Your task to perform on an android device: turn on improve location accuracy Image 0: 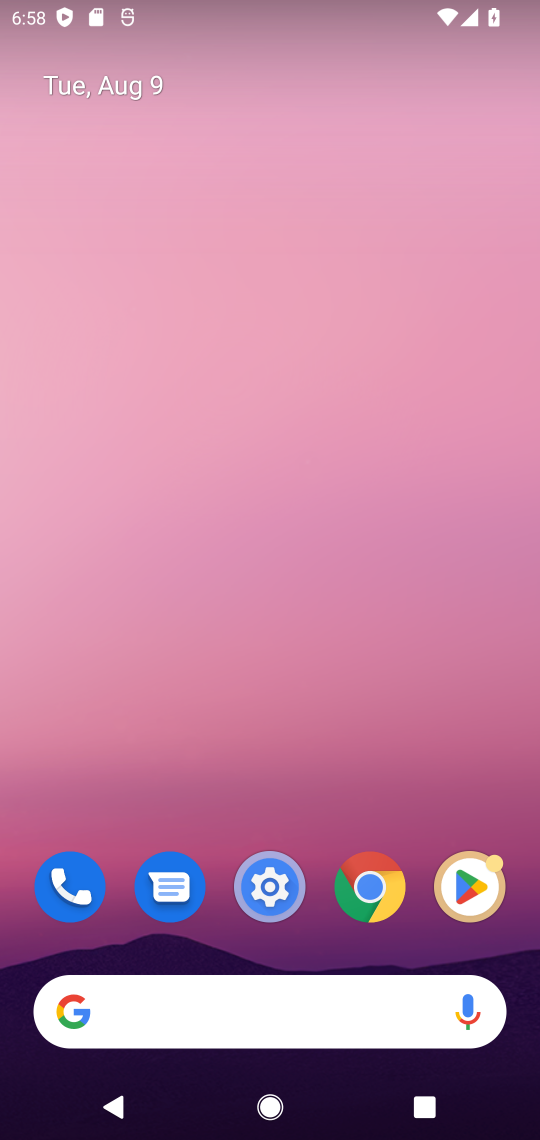
Step 0: drag from (183, 358) to (287, 376)
Your task to perform on an android device: turn on improve location accuracy Image 1: 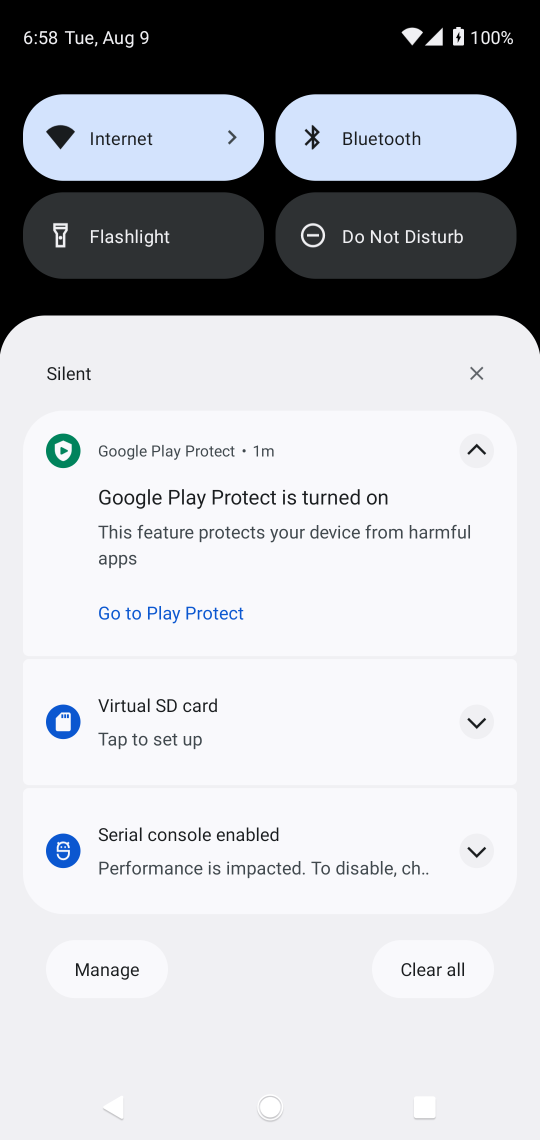
Step 1: drag from (203, 800) to (230, 387)
Your task to perform on an android device: turn on improve location accuracy Image 2: 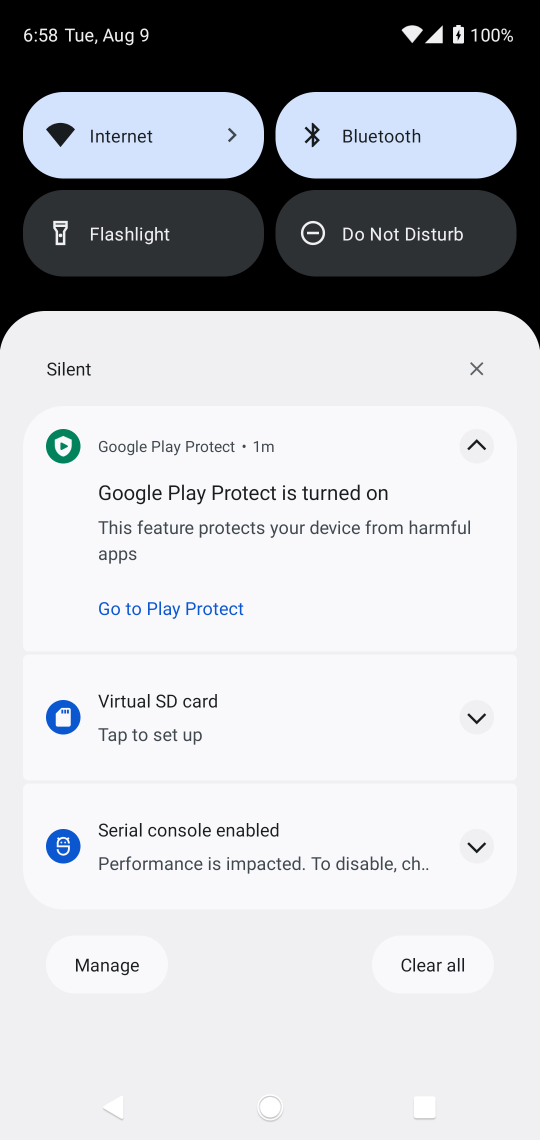
Step 2: press back button
Your task to perform on an android device: turn on improve location accuracy Image 3: 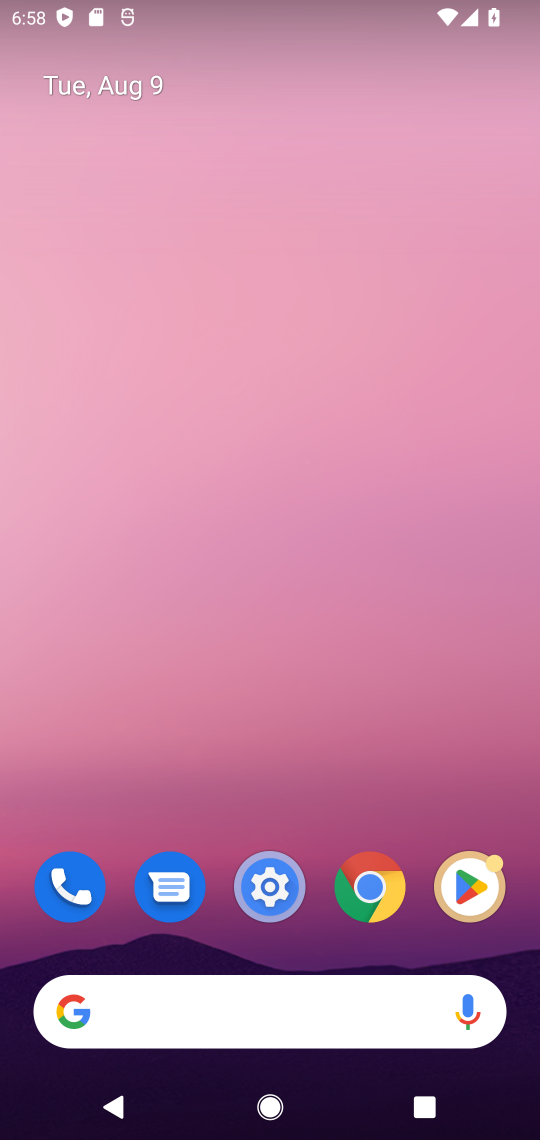
Step 3: drag from (184, 726) to (281, 518)
Your task to perform on an android device: turn on improve location accuracy Image 4: 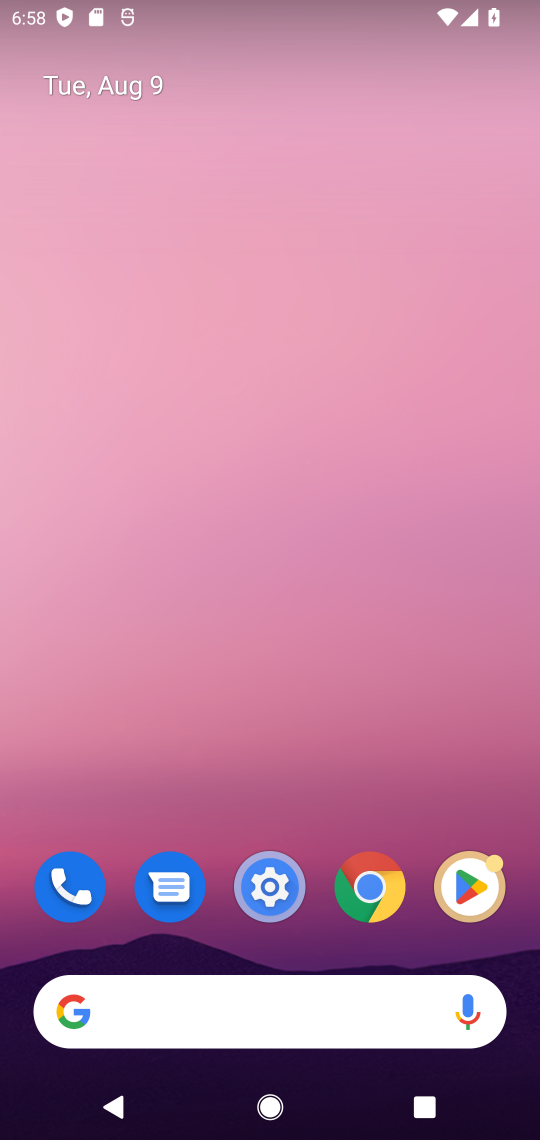
Step 4: drag from (300, 949) to (258, 189)
Your task to perform on an android device: turn on improve location accuracy Image 5: 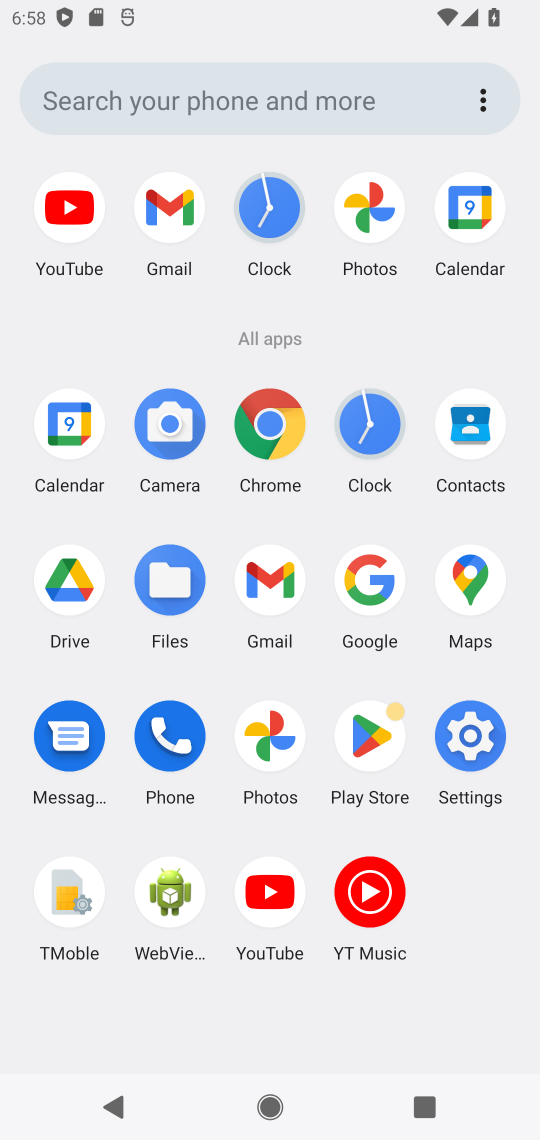
Step 5: click (471, 722)
Your task to perform on an android device: turn on improve location accuracy Image 6: 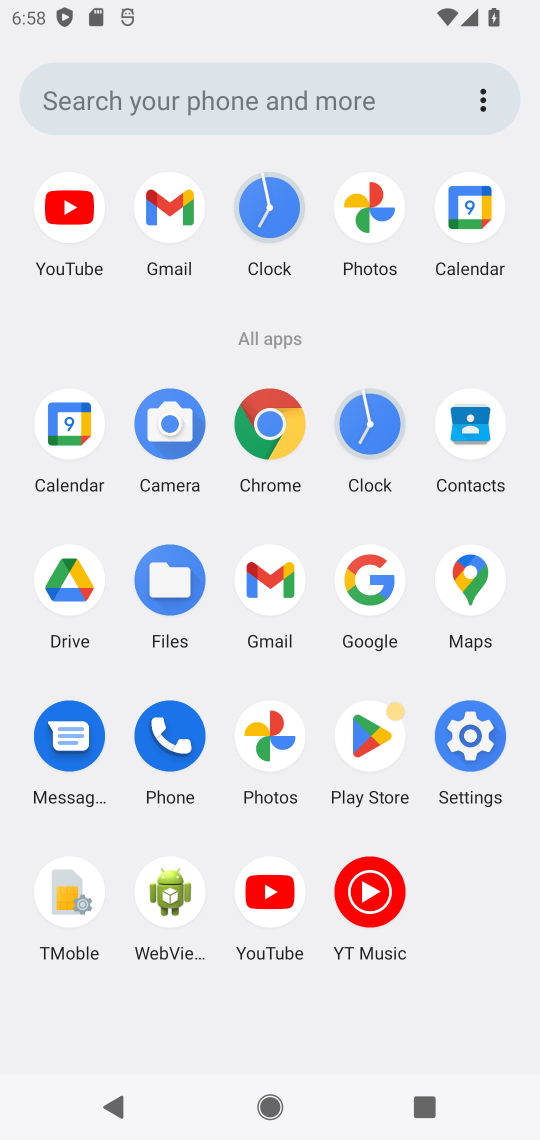
Step 6: click (468, 730)
Your task to perform on an android device: turn on improve location accuracy Image 7: 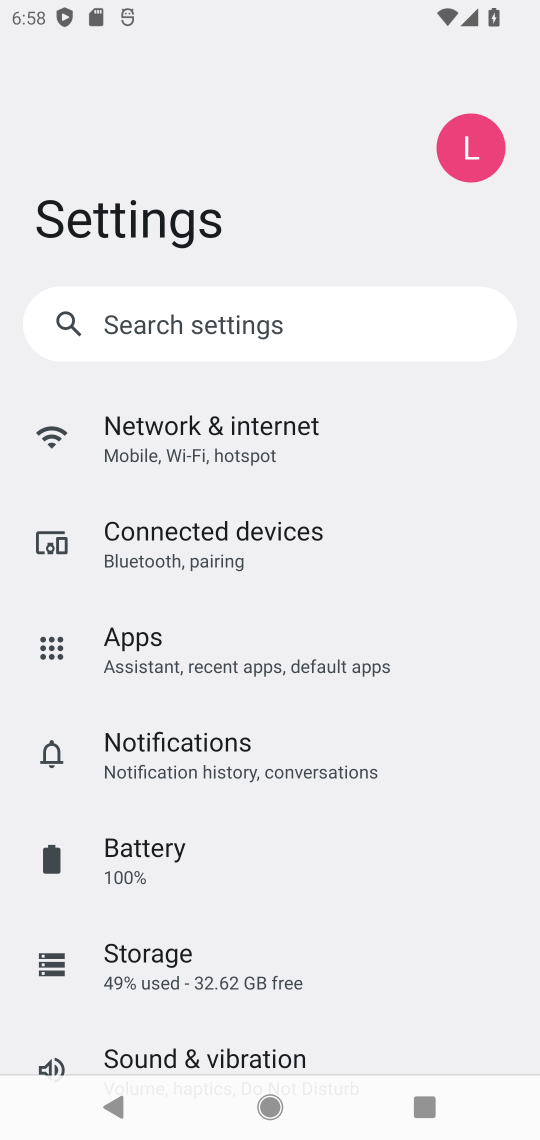
Step 7: drag from (157, 906) to (187, 426)
Your task to perform on an android device: turn on improve location accuracy Image 8: 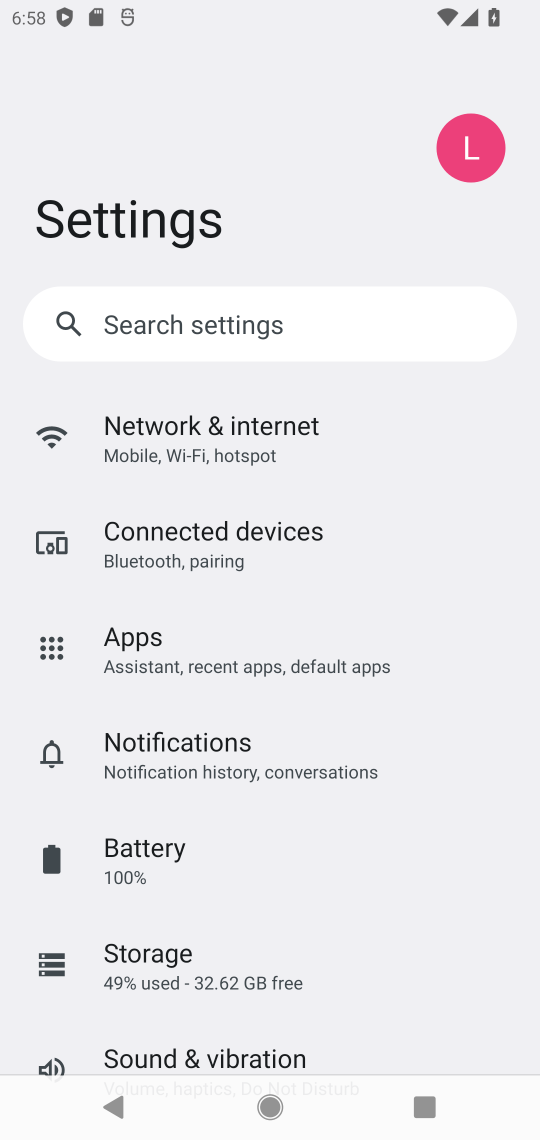
Step 8: drag from (203, 880) to (270, 256)
Your task to perform on an android device: turn on improve location accuracy Image 9: 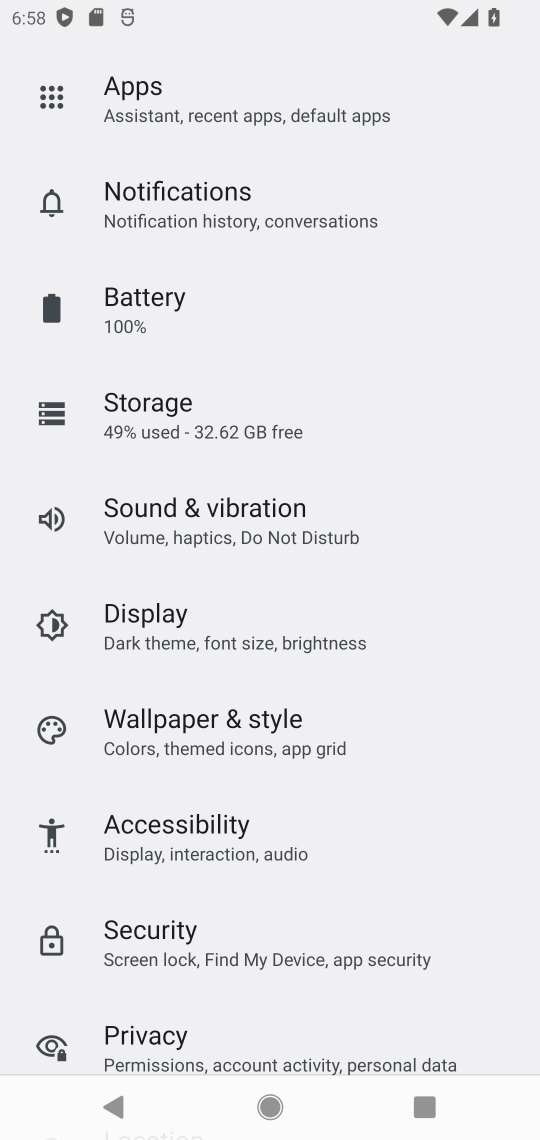
Step 9: drag from (204, 924) to (193, 502)
Your task to perform on an android device: turn on improve location accuracy Image 10: 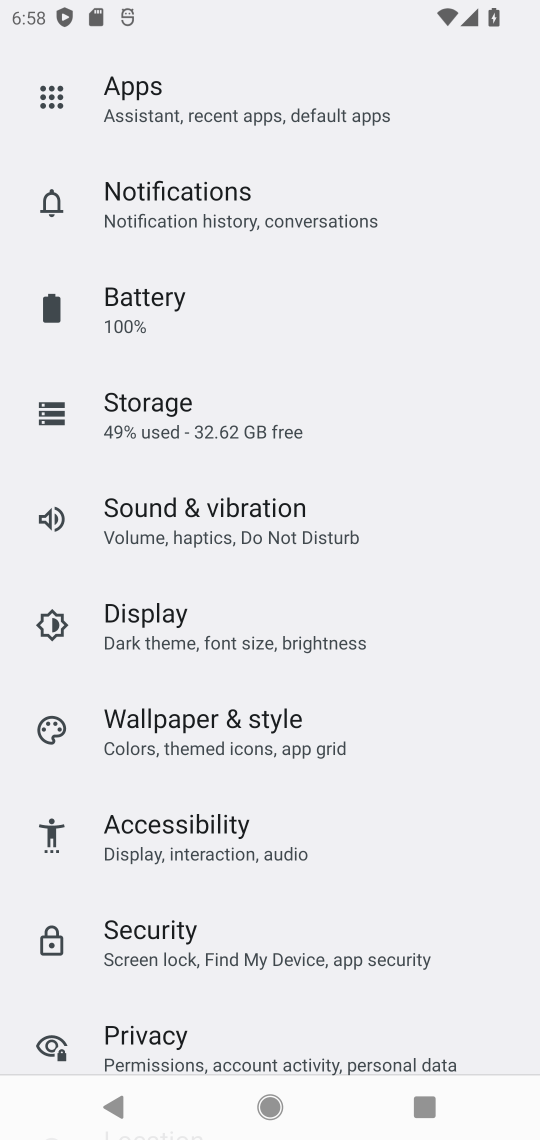
Step 10: drag from (163, 898) to (163, 459)
Your task to perform on an android device: turn on improve location accuracy Image 11: 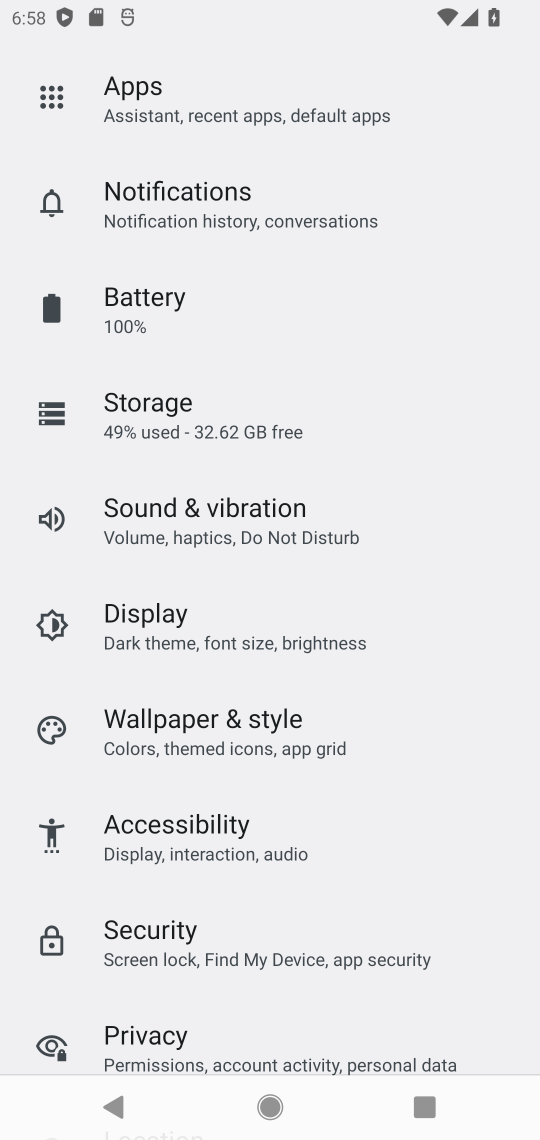
Step 11: drag from (176, 789) to (186, 431)
Your task to perform on an android device: turn on improve location accuracy Image 12: 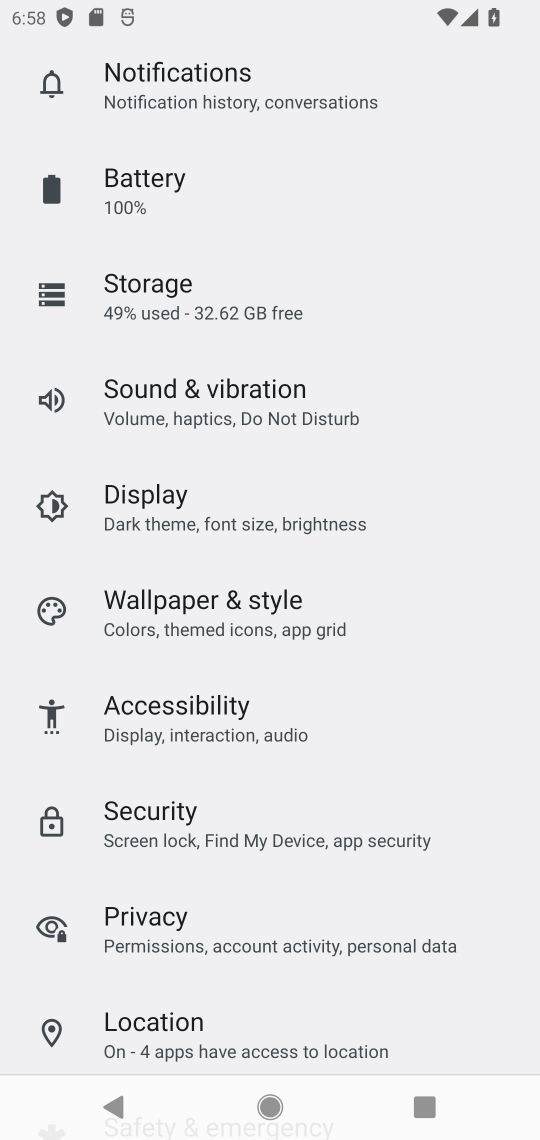
Step 12: drag from (185, 899) to (176, 297)
Your task to perform on an android device: turn on improve location accuracy Image 13: 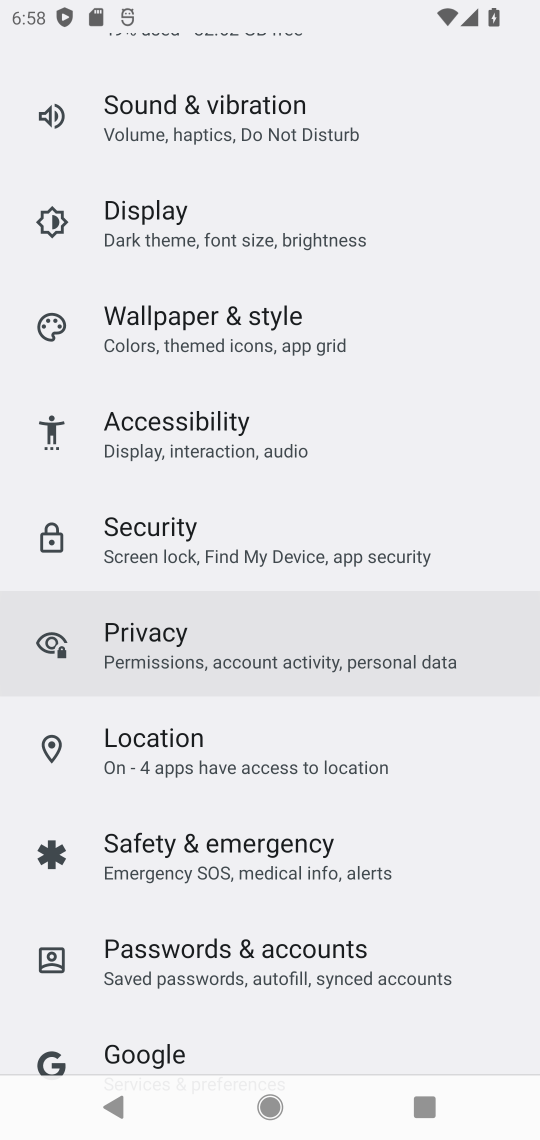
Step 13: click (152, 1024)
Your task to perform on an android device: turn on improve location accuracy Image 14: 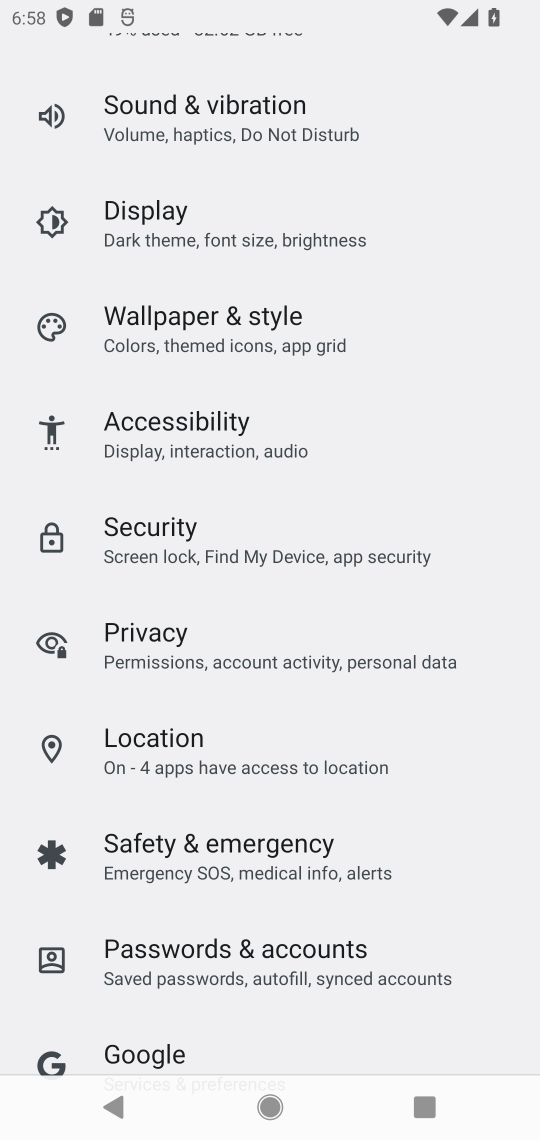
Step 14: click (125, 745)
Your task to perform on an android device: turn on improve location accuracy Image 15: 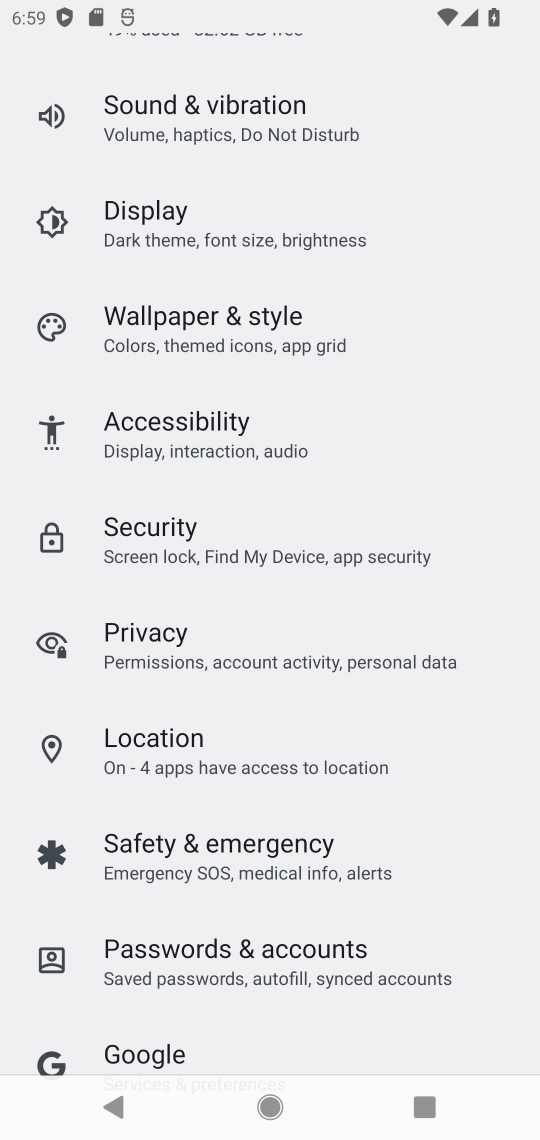
Step 15: drag from (126, 746) to (191, 744)
Your task to perform on an android device: turn on improve location accuracy Image 16: 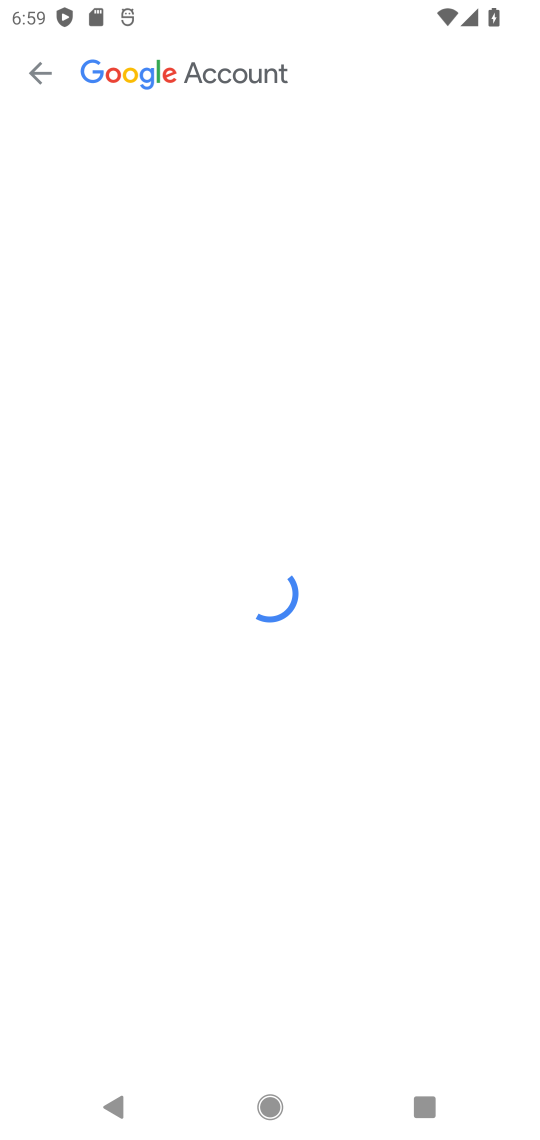
Step 16: click (202, 744)
Your task to perform on an android device: turn on improve location accuracy Image 17: 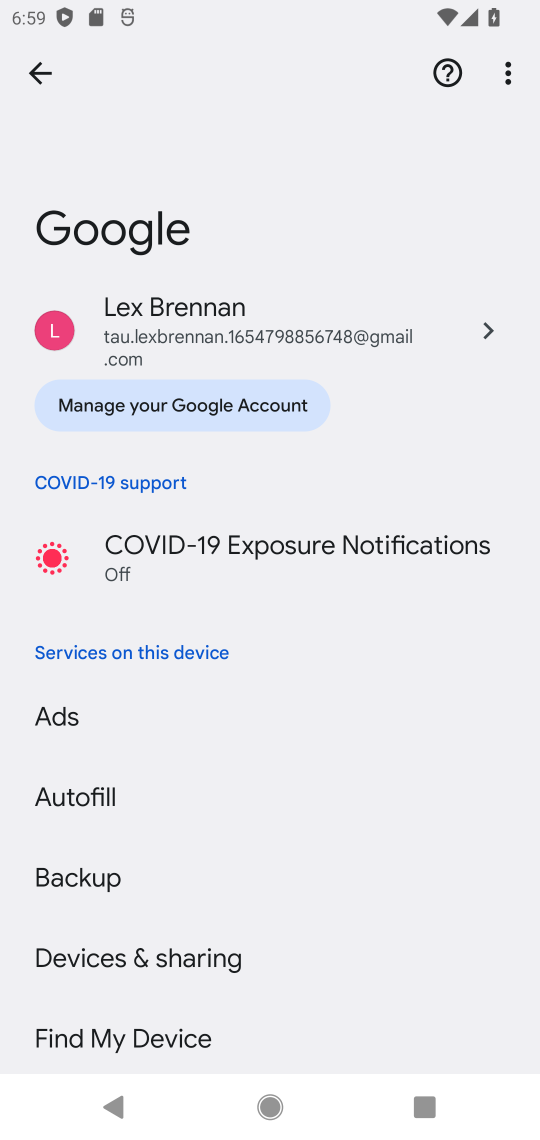
Step 17: click (38, 62)
Your task to perform on an android device: turn on improve location accuracy Image 18: 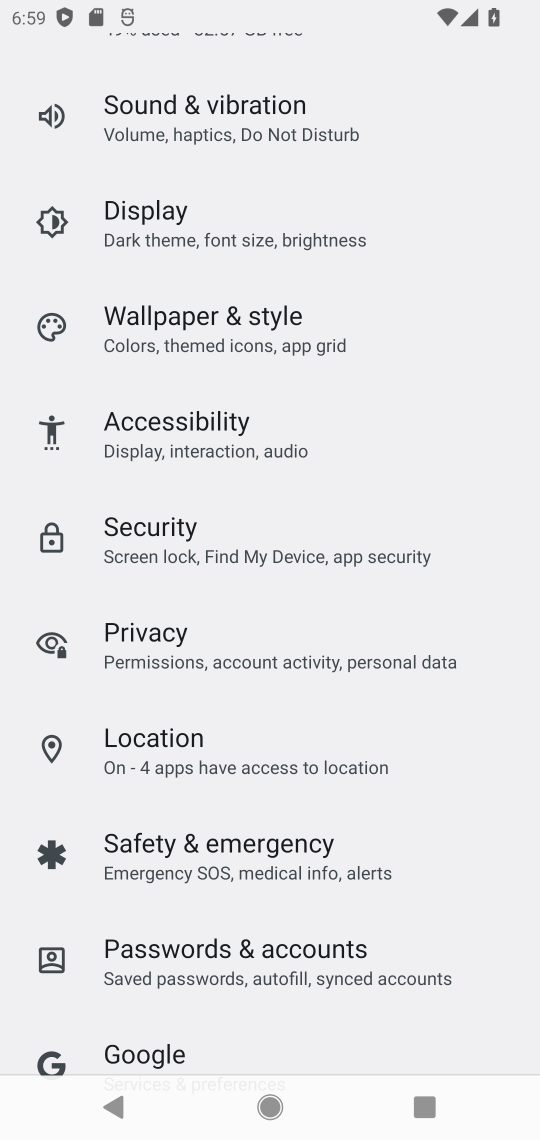
Step 18: click (158, 735)
Your task to perform on an android device: turn on improve location accuracy Image 19: 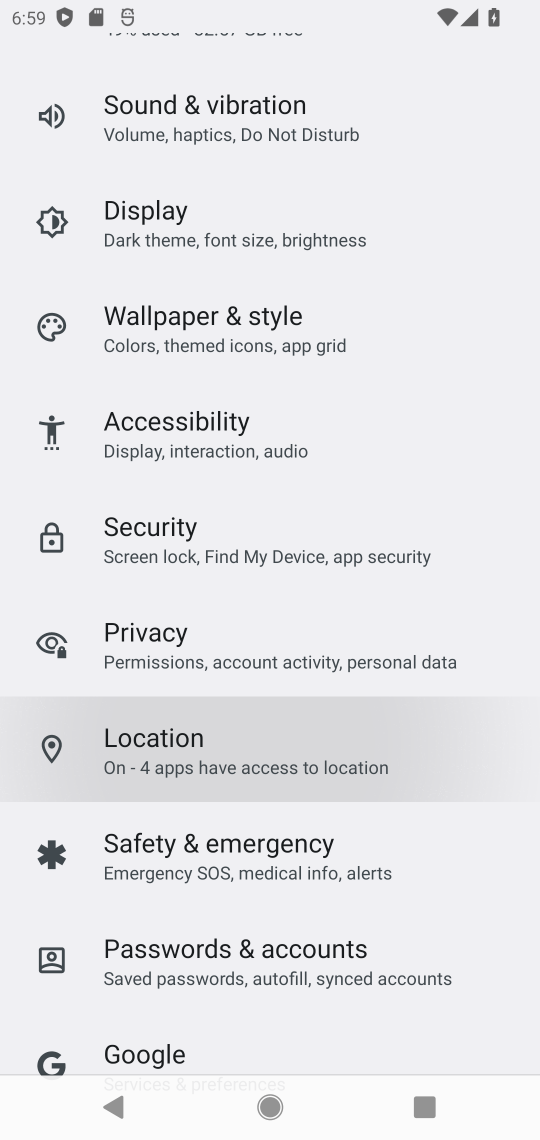
Step 19: click (160, 733)
Your task to perform on an android device: turn on improve location accuracy Image 20: 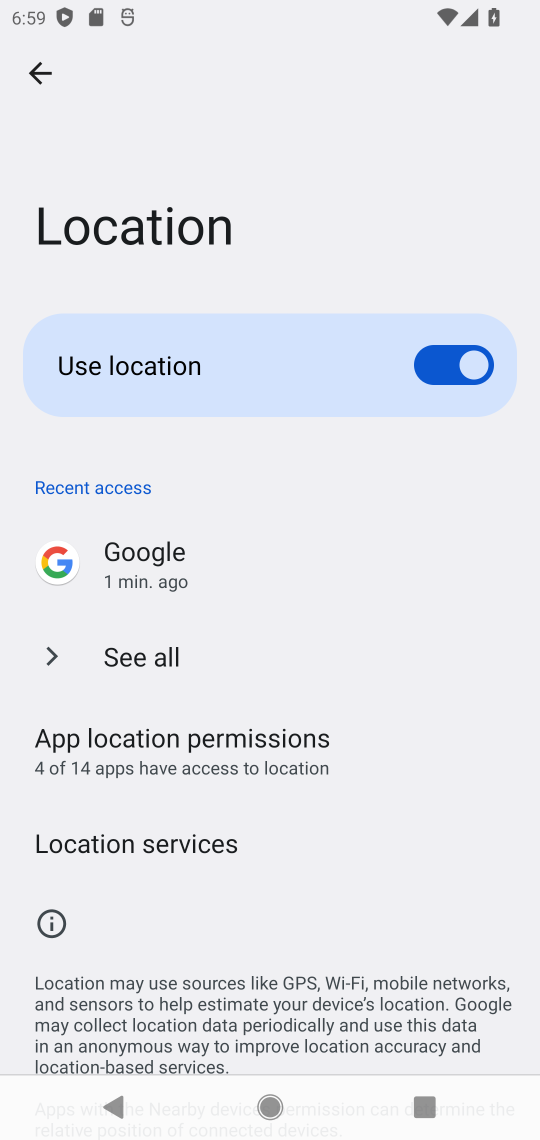
Step 20: click (115, 835)
Your task to perform on an android device: turn on improve location accuracy Image 21: 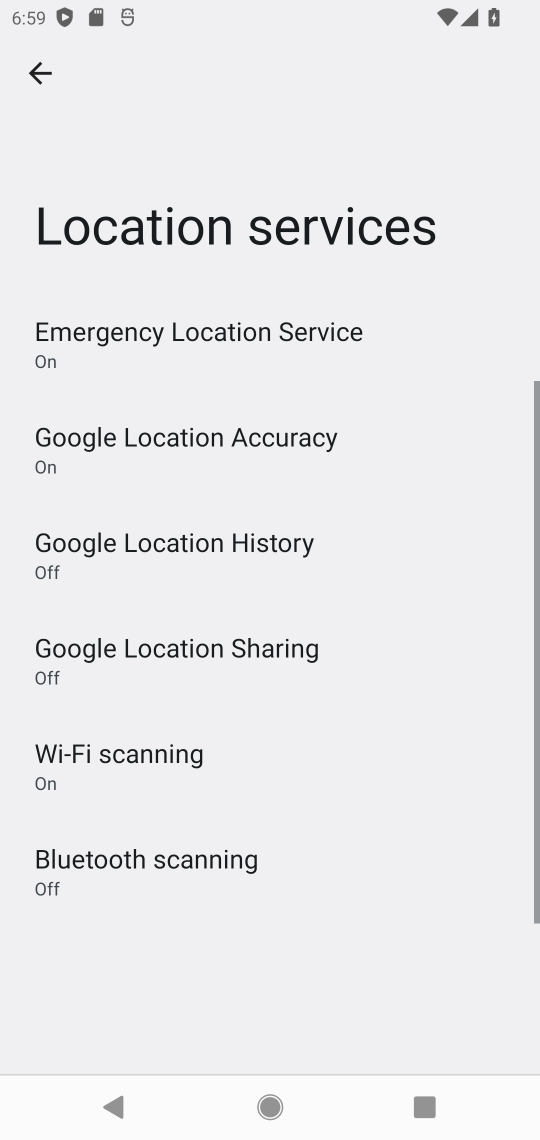
Step 21: click (224, 429)
Your task to perform on an android device: turn on improve location accuracy Image 22: 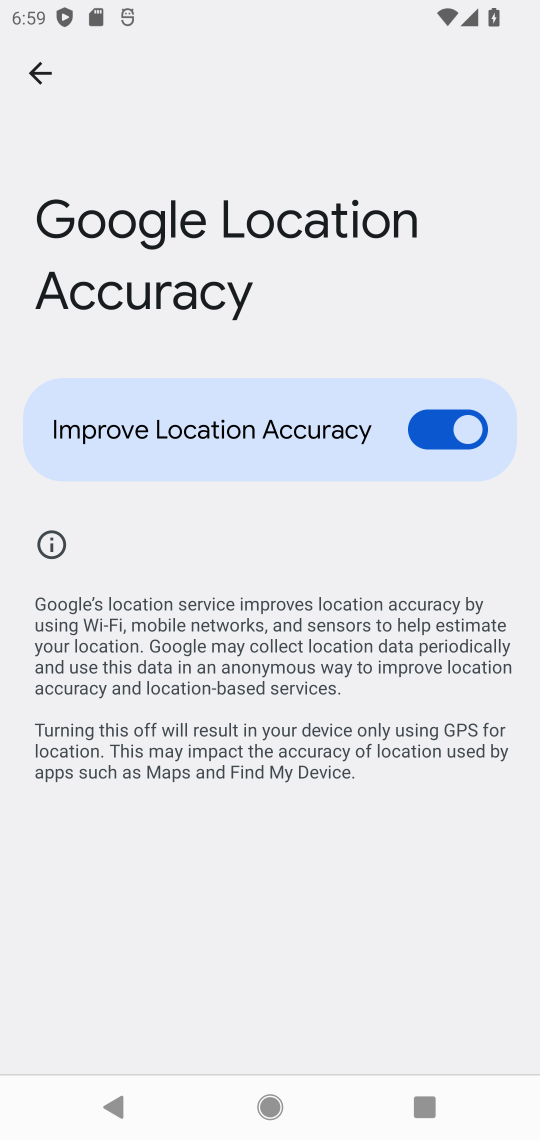
Step 22: task complete